Your task to perform on an android device: open sync settings in chrome Image 0: 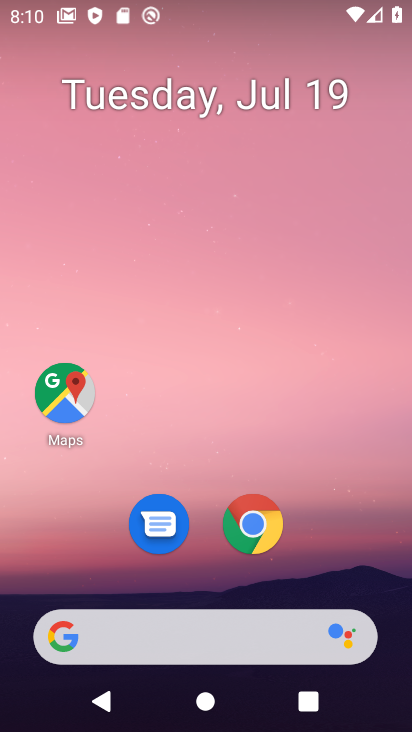
Step 0: press home button
Your task to perform on an android device: open sync settings in chrome Image 1: 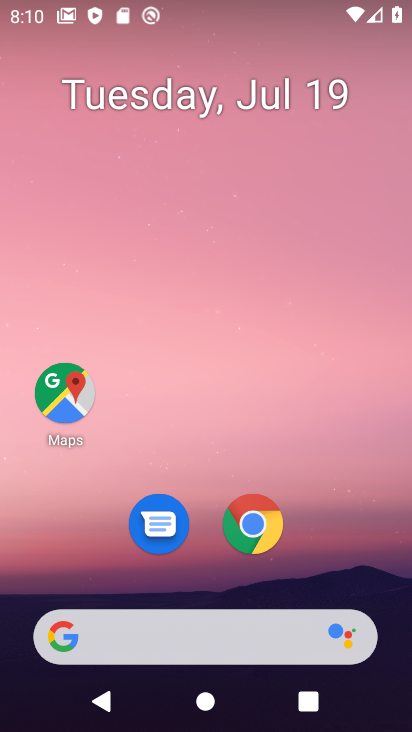
Step 1: click (259, 524)
Your task to perform on an android device: open sync settings in chrome Image 2: 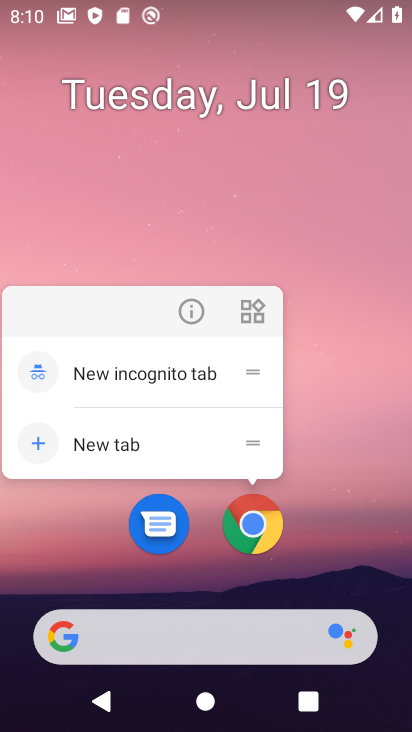
Step 2: click (254, 525)
Your task to perform on an android device: open sync settings in chrome Image 3: 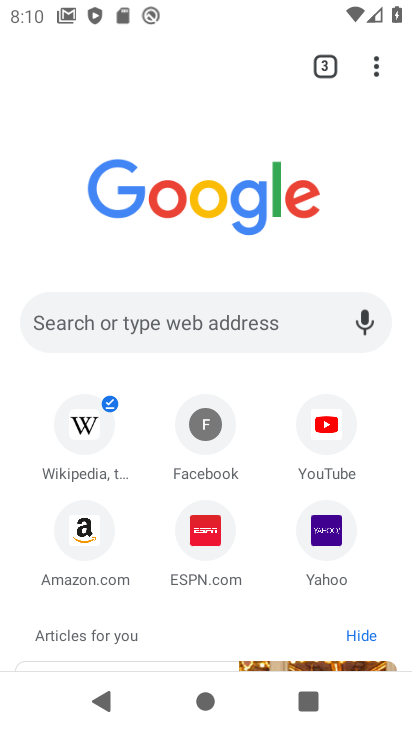
Step 3: drag from (372, 64) to (220, 544)
Your task to perform on an android device: open sync settings in chrome Image 4: 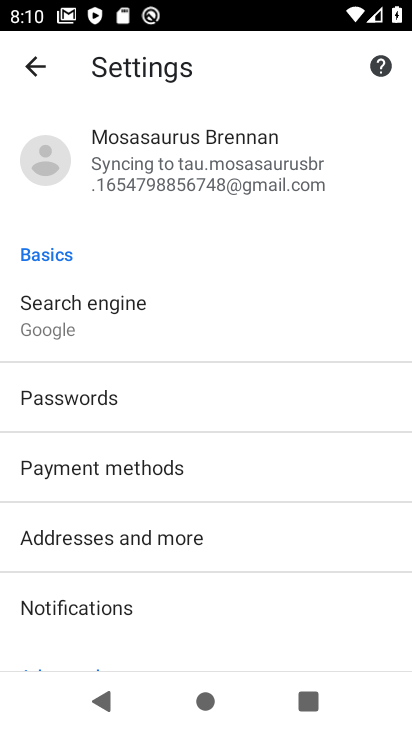
Step 4: click (205, 165)
Your task to perform on an android device: open sync settings in chrome Image 5: 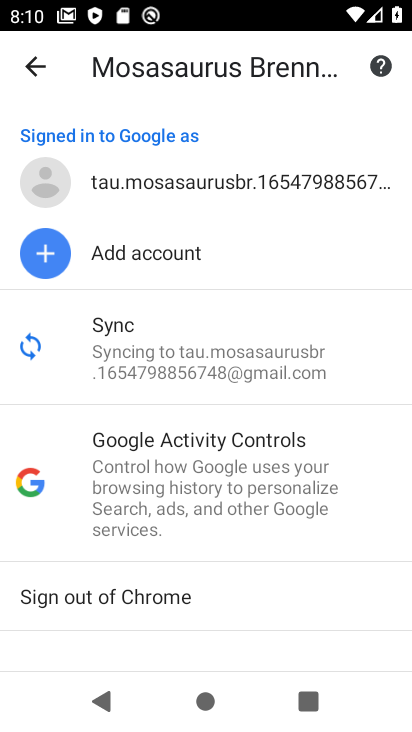
Step 5: click (172, 329)
Your task to perform on an android device: open sync settings in chrome Image 6: 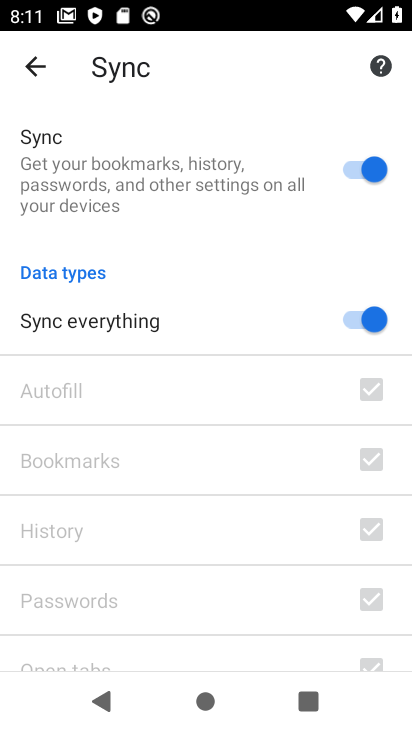
Step 6: task complete